Your task to perform on an android device: manage bookmarks in the chrome app Image 0: 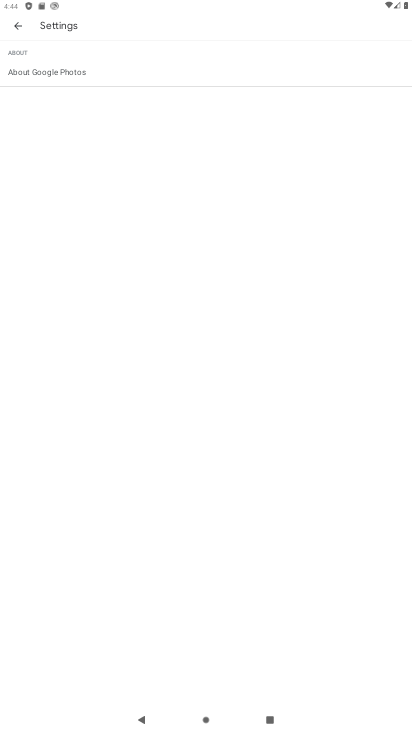
Step 0: press home button
Your task to perform on an android device: manage bookmarks in the chrome app Image 1: 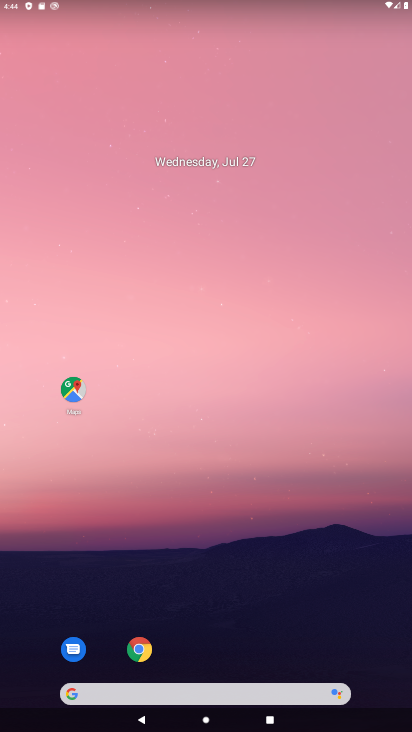
Step 1: click (140, 650)
Your task to perform on an android device: manage bookmarks in the chrome app Image 2: 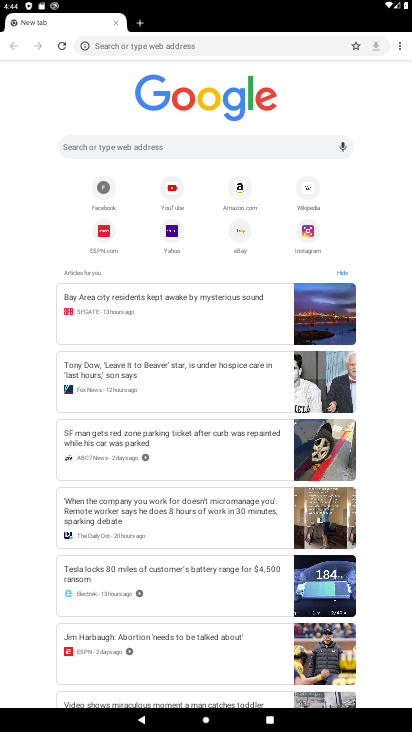
Step 2: click (399, 47)
Your task to perform on an android device: manage bookmarks in the chrome app Image 3: 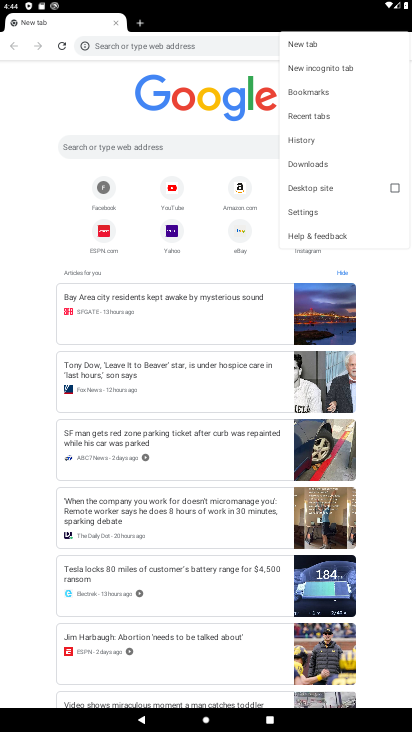
Step 3: click (310, 91)
Your task to perform on an android device: manage bookmarks in the chrome app Image 4: 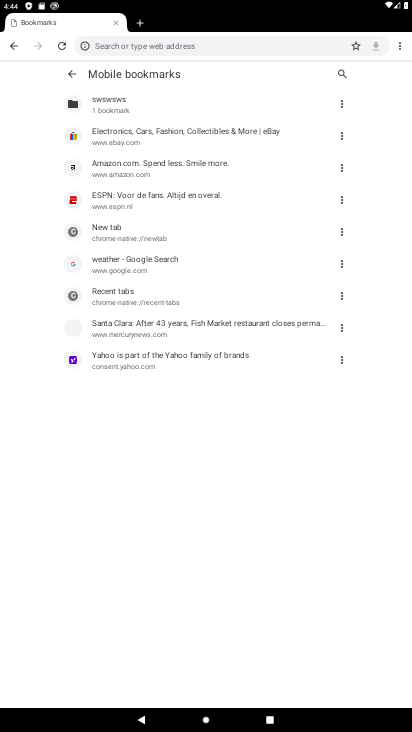
Step 4: click (343, 104)
Your task to perform on an android device: manage bookmarks in the chrome app Image 5: 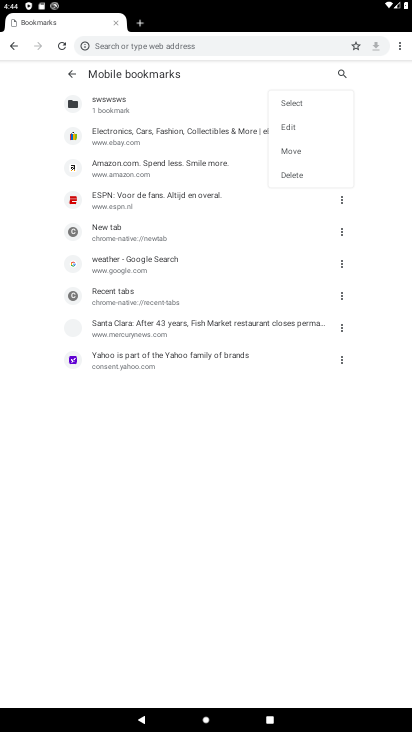
Step 5: click (288, 128)
Your task to perform on an android device: manage bookmarks in the chrome app Image 6: 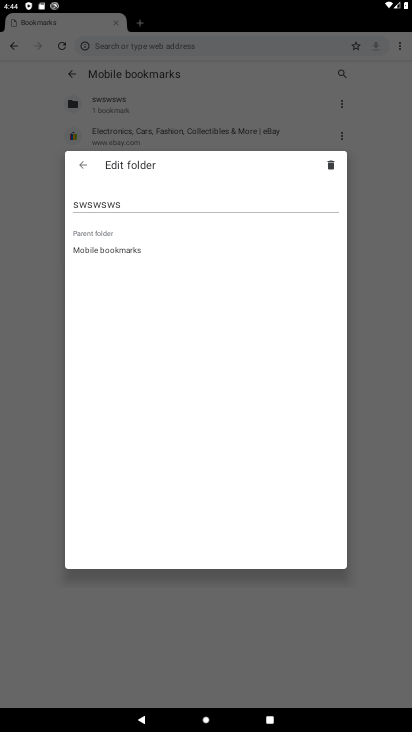
Step 6: click (332, 162)
Your task to perform on an android device: manage bookmarks in the chrome app Image 7: 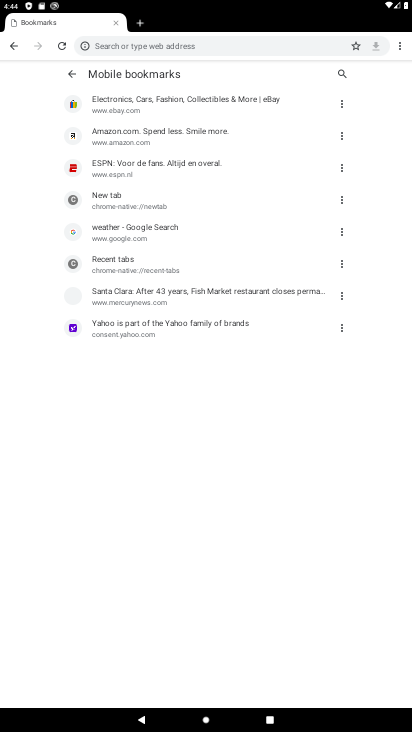
Step 7: task complete